Your task to perform on an android device: Turn on the flashlight Image 0: 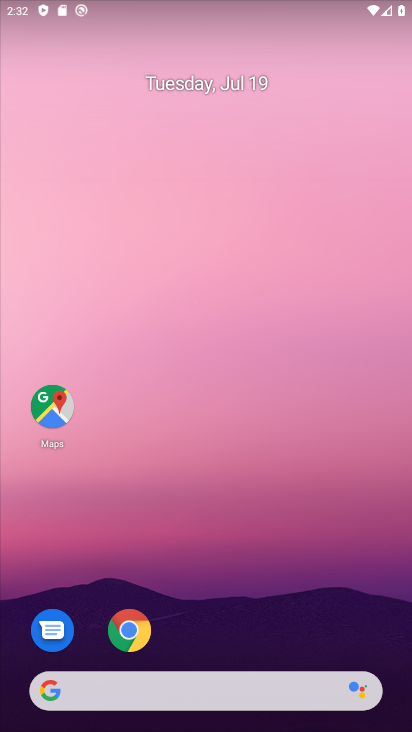
Step 0: drag from (272, 11) to (267, 227)
Your task to perform on an android device: Turn on the flashlight Image 1: 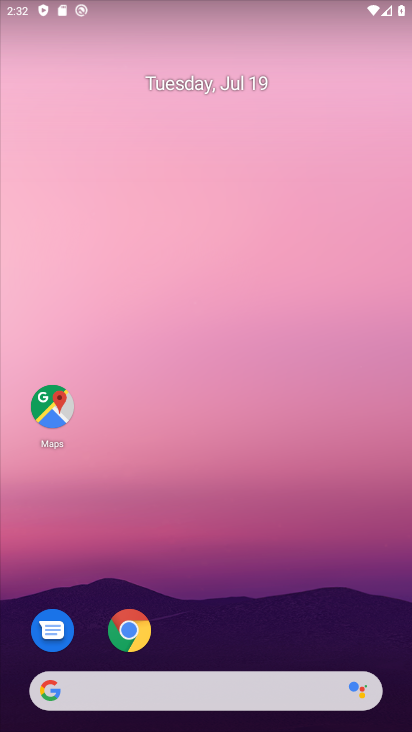
Step 1: drag from (310, 8) to (338, 407)
Your task to perform on an android device: Turn on the flashlight Image 2: 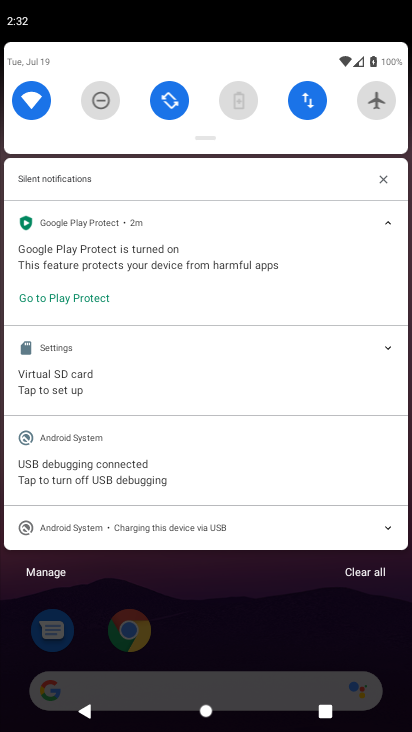
Step 2: drag from (267, 117) to (225, 311)
Your task to perform on an android device: Turn on the flashlight Image 3: 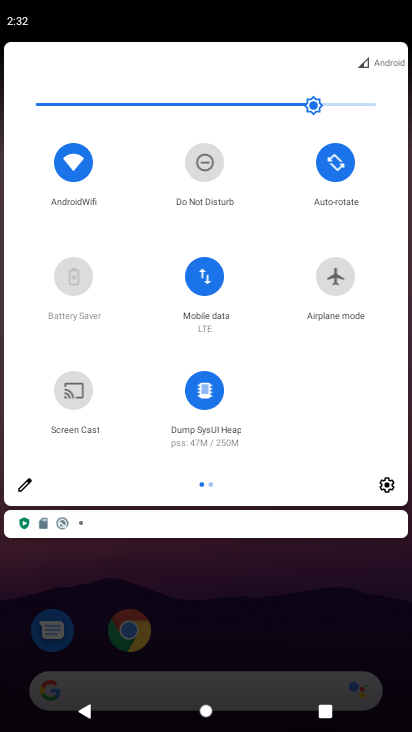
Step 3: click (27, 476)
Your task to perform on an android device: Turn on the flashlight Image 4: 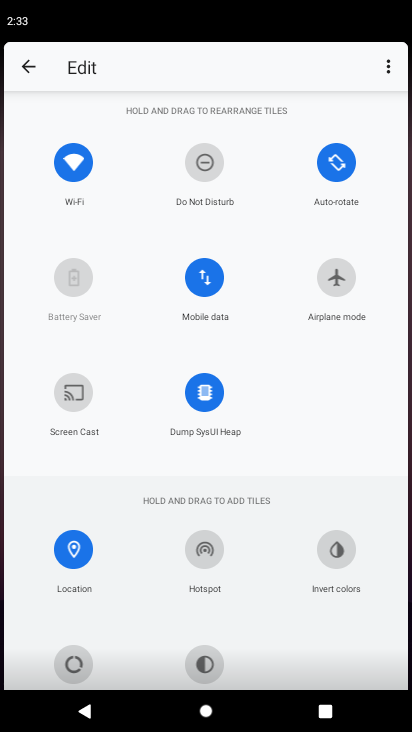
Step 4: task complete